Your task to perform on an android device: Go to Wikipedia Image 0: 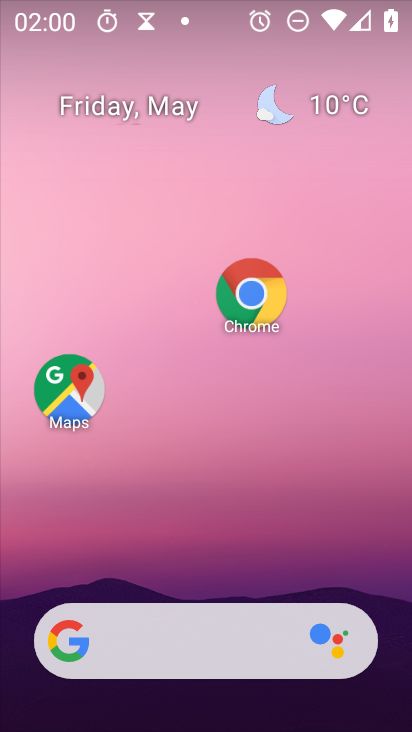
Step 0: press home button
Your task to perform on an android device: Go to Wikipedia Image 1: 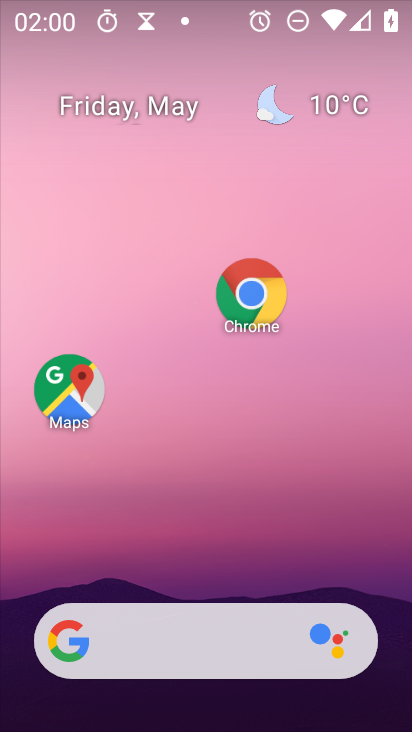
Step 1: click (249, 293)
Your task to perform on an android device: Go to Wikipedia Image 2: 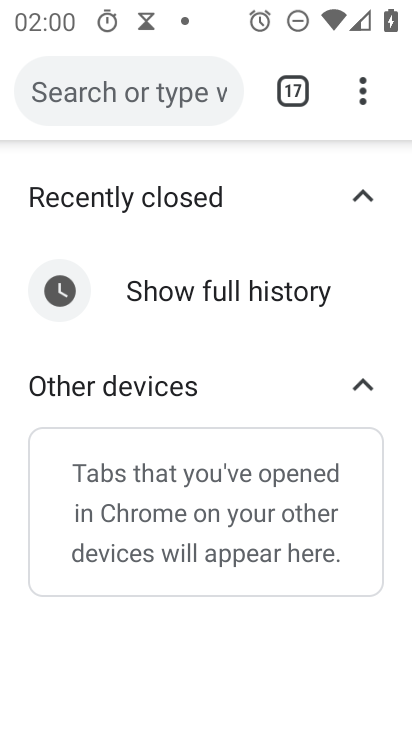
Step 2: drag from (362, 107) to (214, 179)
Your task to perform on an android device: Go to Wikipedia Image 3: 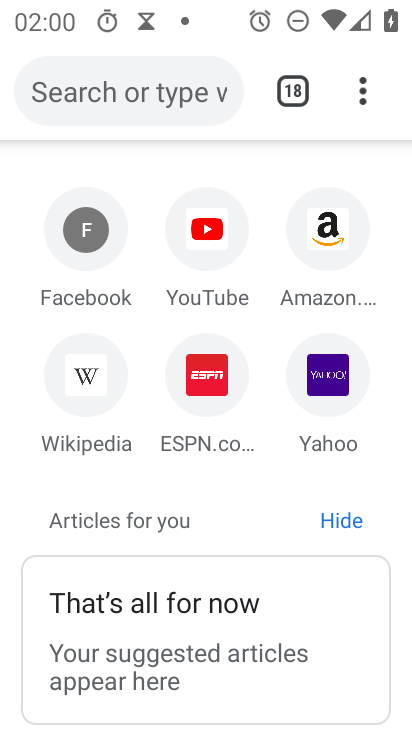
Step 3: click (94, 371)
Your task to perform on an android device: Go to Wikipedia Image 4: 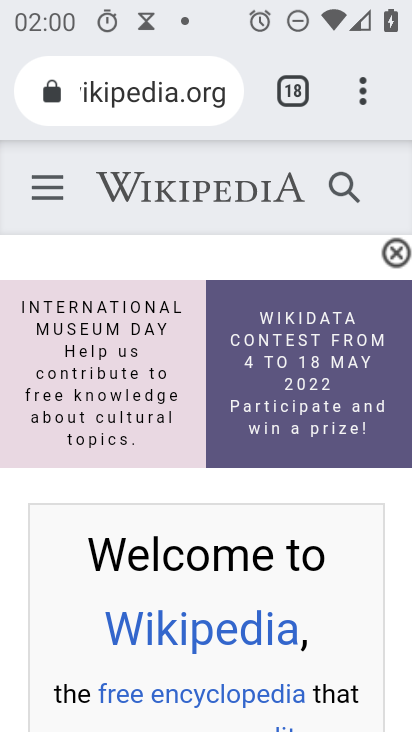
Step 4: task complete